Your task to perform on an android device: set an alarm Image 0: 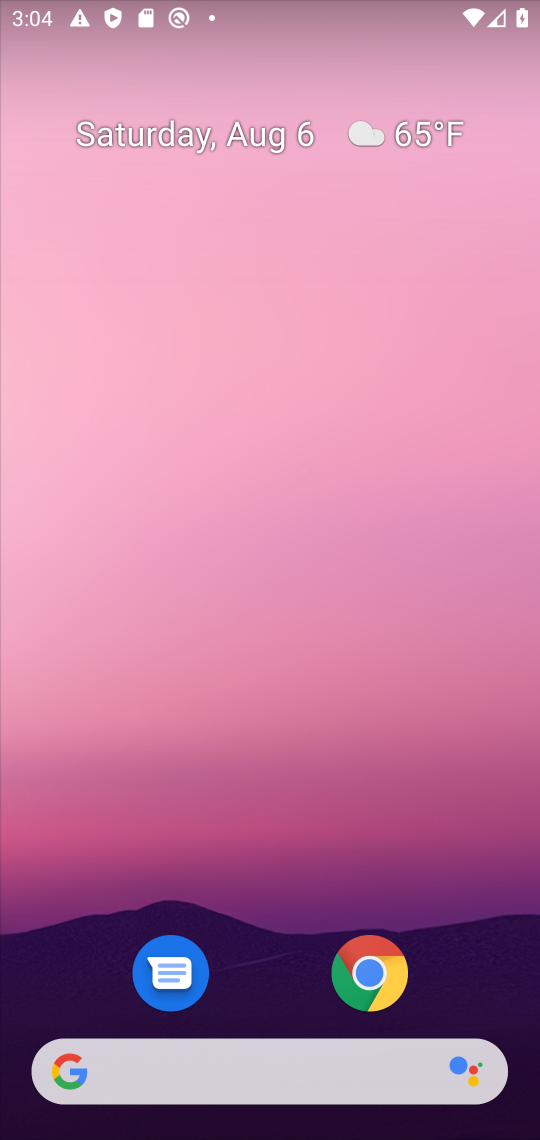
Step 0: drag from (230, 911) to (330, 50)
Your task to perform on an android device: set an alarm Image 1: 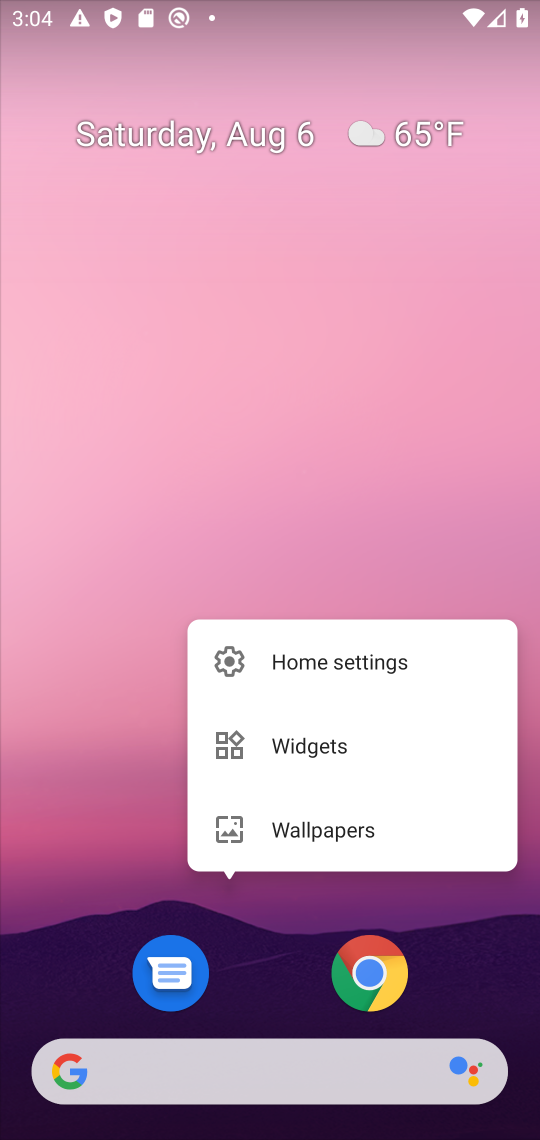
Step 1: click (378, 345)
Your task to perform on an android device: set an alarm Image 2: 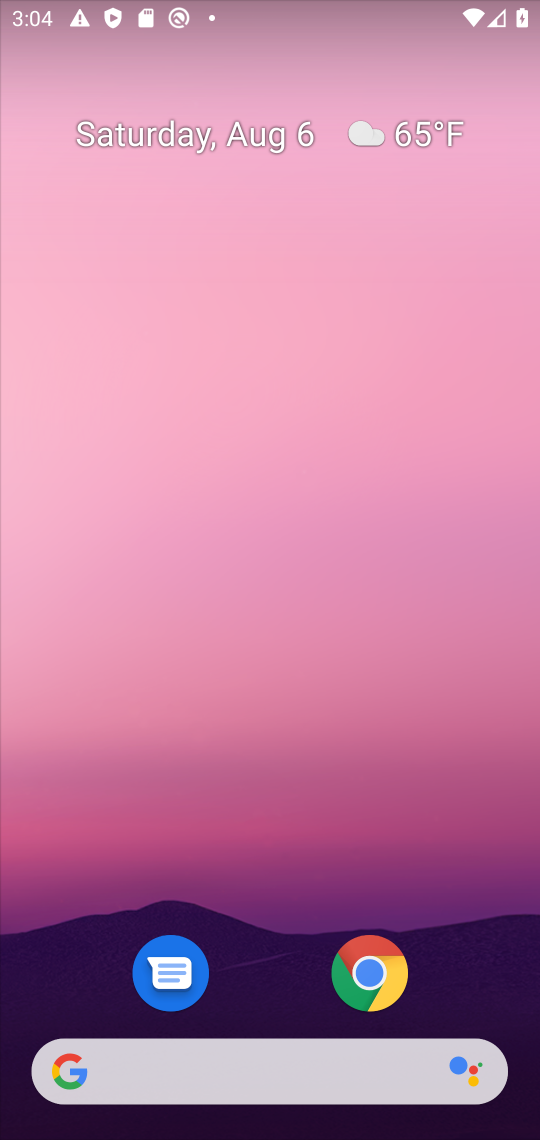
Step 2: drag from (270, 905) to (371, 57)
Your task to perform on an android device: set an alarm Image 3: 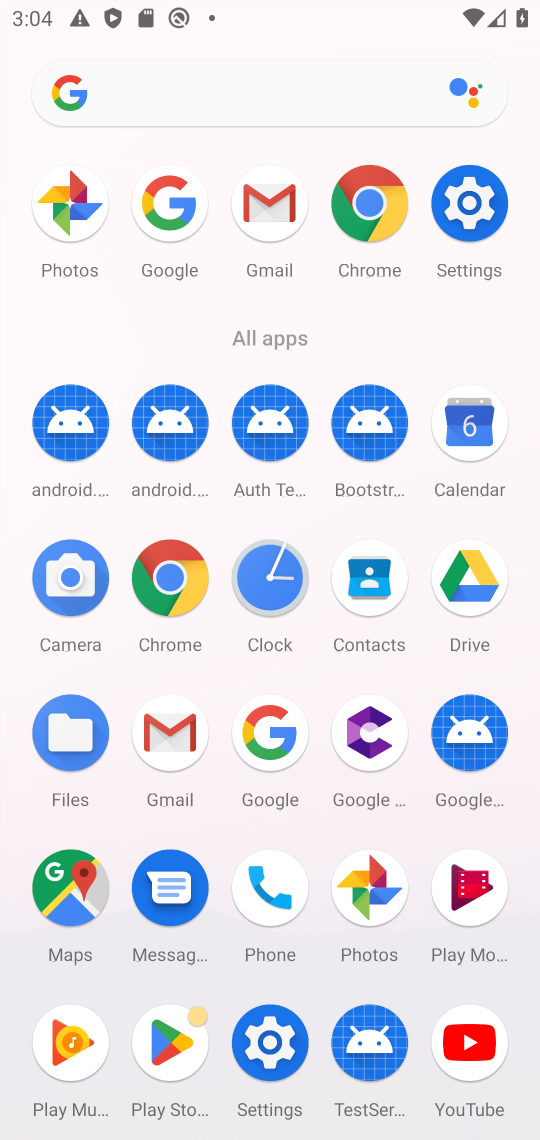
Step 3: click (279, 586)
Your task to perform on an android device: set an alarm Image 4: 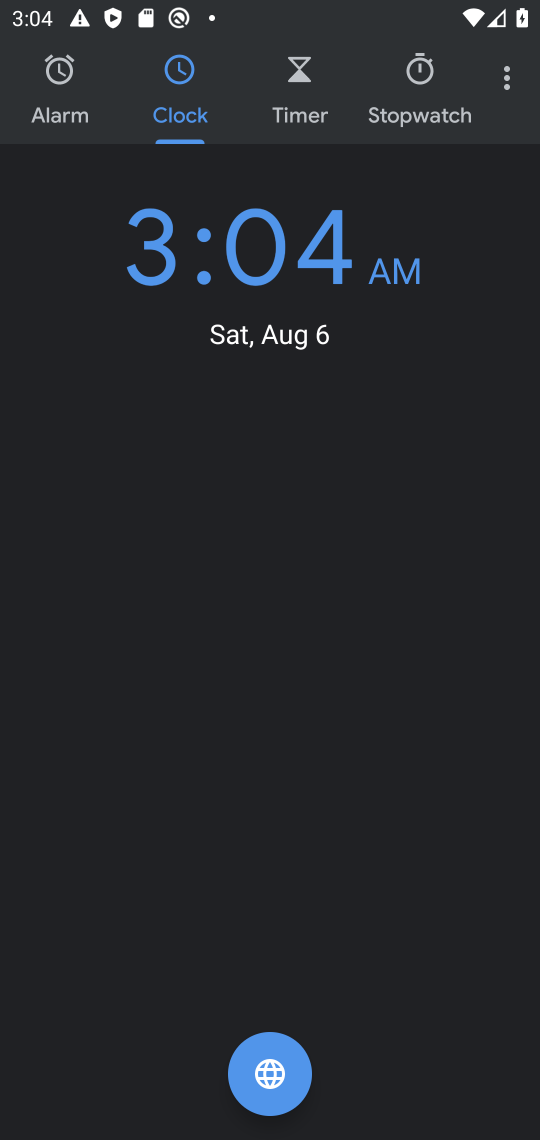
Step 4: click (58, 85)
Your task to perform on an android device: set an alarm Image 5: 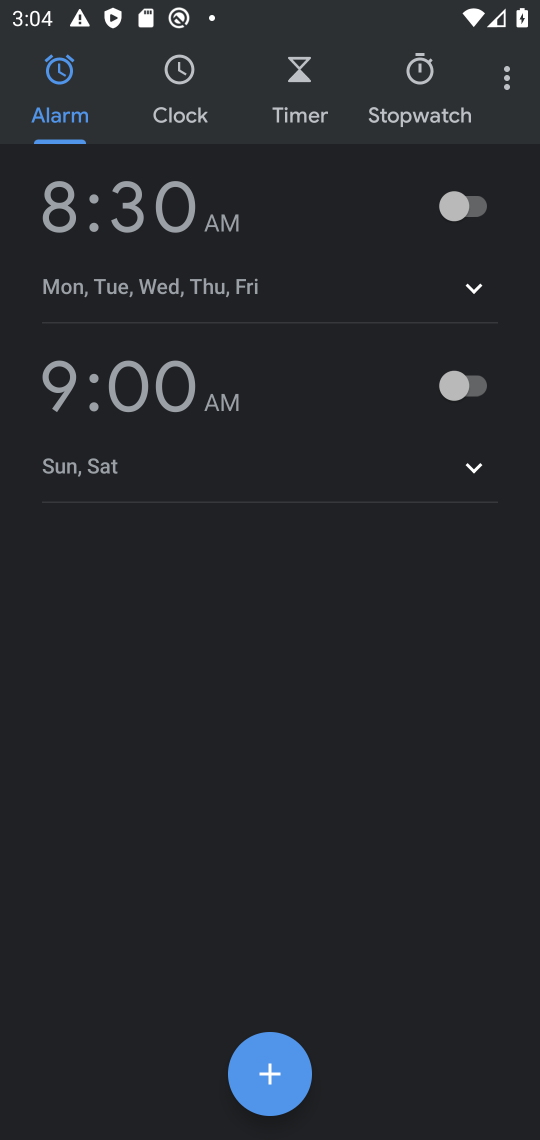
Step 5: click (264, 1079)
Your task to perform on an android device: set an alarm Image 6: 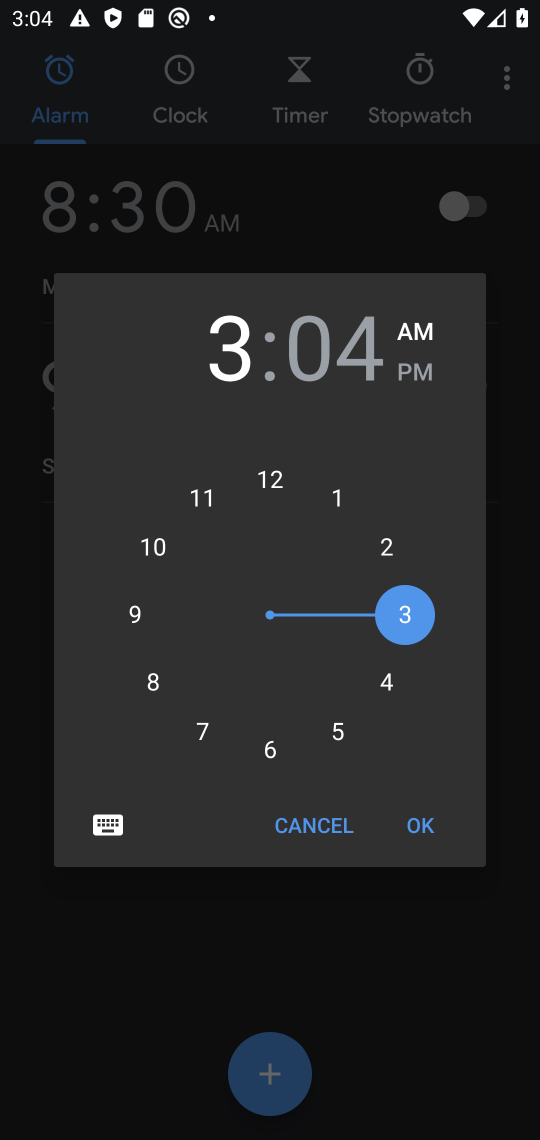
Step 6: click (430, 811)
Your task to perform on an android device: set an alarm Image 7: 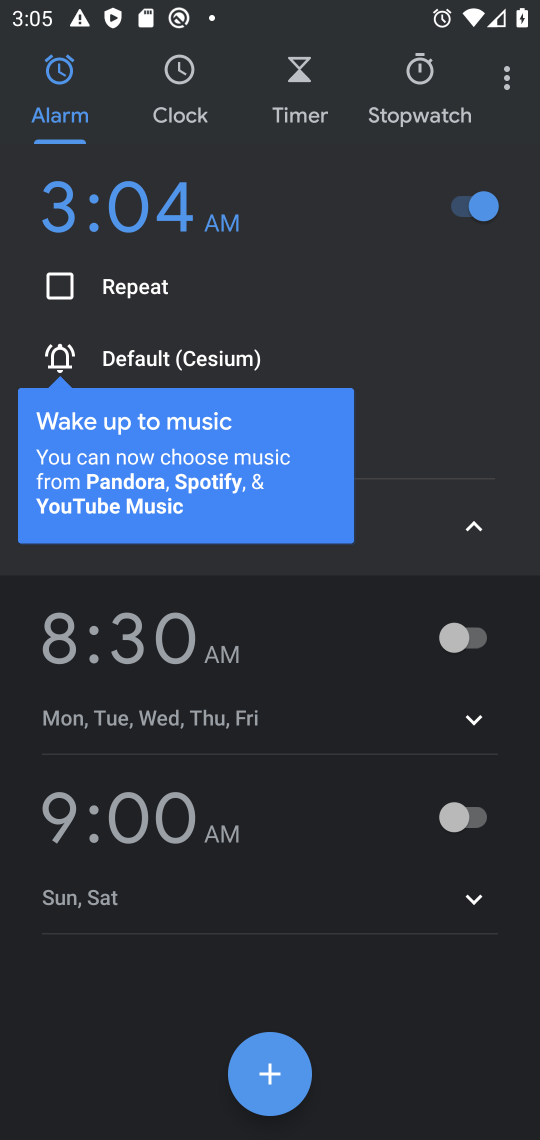
Step 7: click (471, 539)
Your task to perform on an android device: set an alarm Image 8: 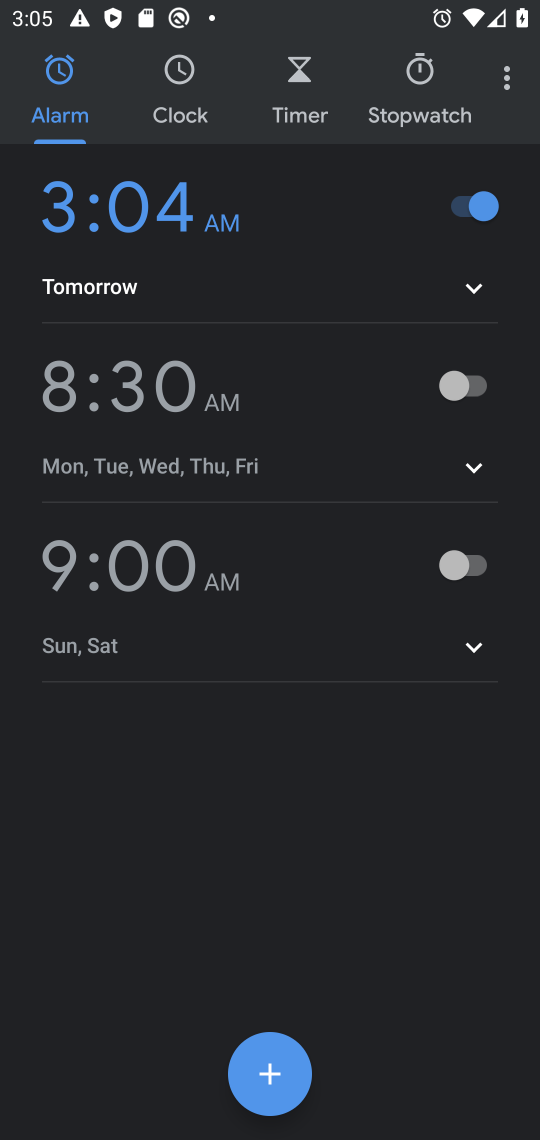
Step 8: task complete